Your task to perform on an android device: Go to network settings Image 0: 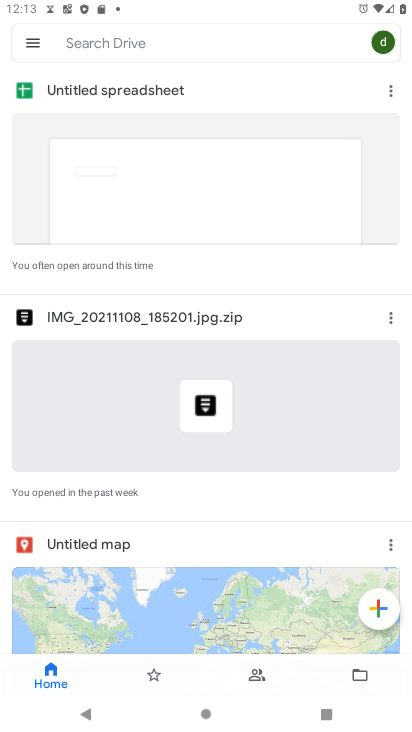
Step 0: press home button
Your task to perform on an android device: Go to network settings Image 1: 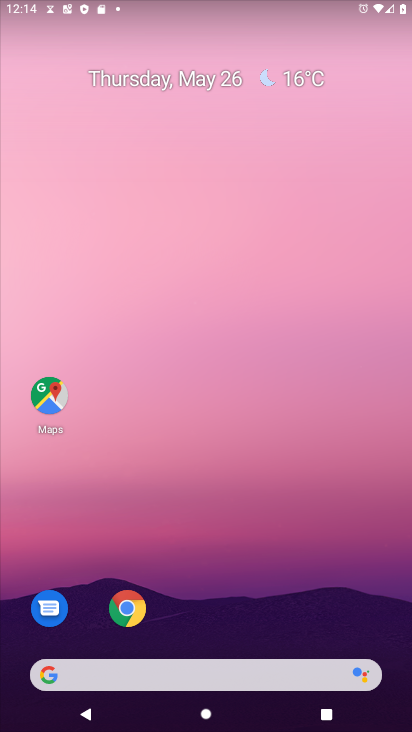
Step 1: drag from (220, 724) to (225, 128)
Your task to perform on an android device: Go to network settings Image 2: 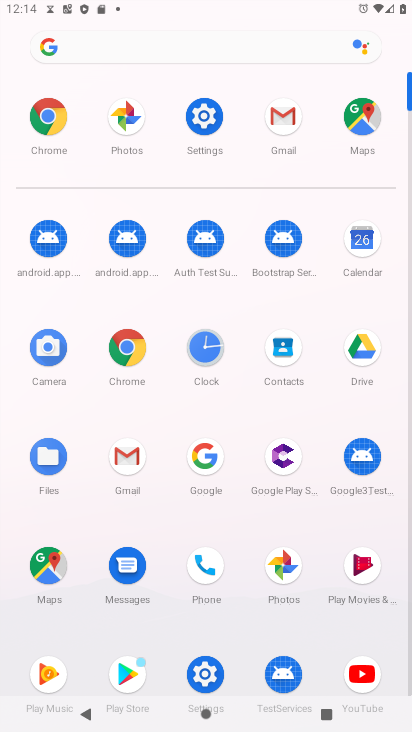
Step 2: click (206, 114)
Your task to perform on an android device: Go to network settings Image 3: 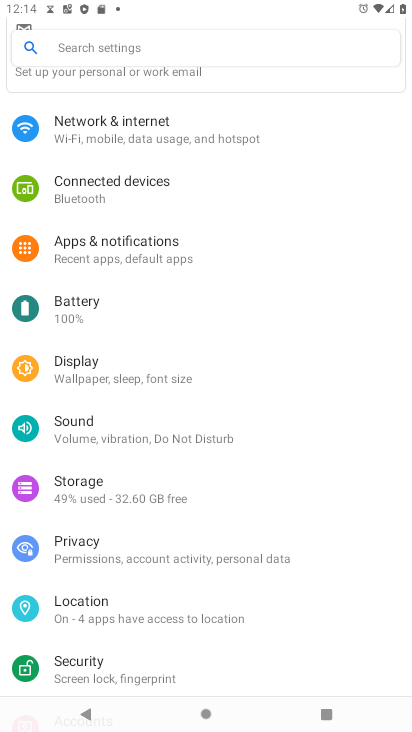
Step 3: click (101, 135)
Your task to perform on an android device: Go to network settings Image 4: 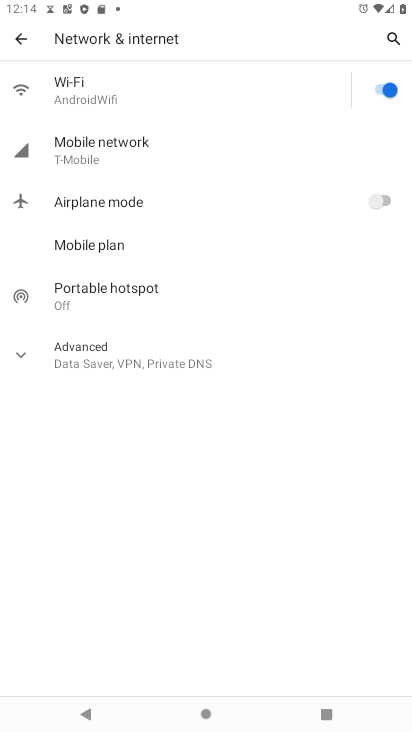
Step 4: click (101, 135)
Your task to perform on an android device: Go to network settings Image 5: 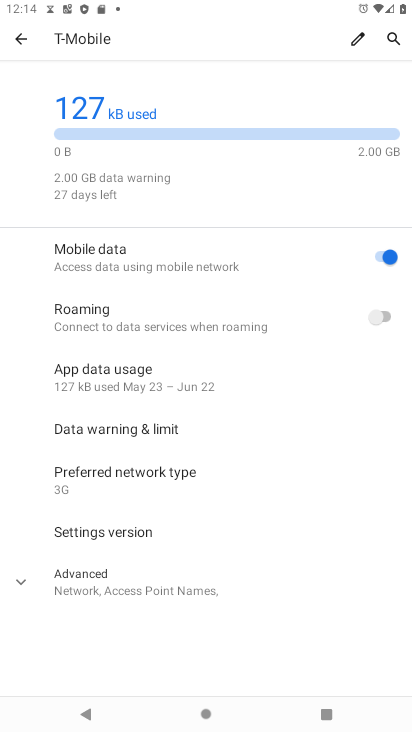
Step 5: task complete